Your task to perform on an android device: Open calendar and show me the second week of next month Image 0: 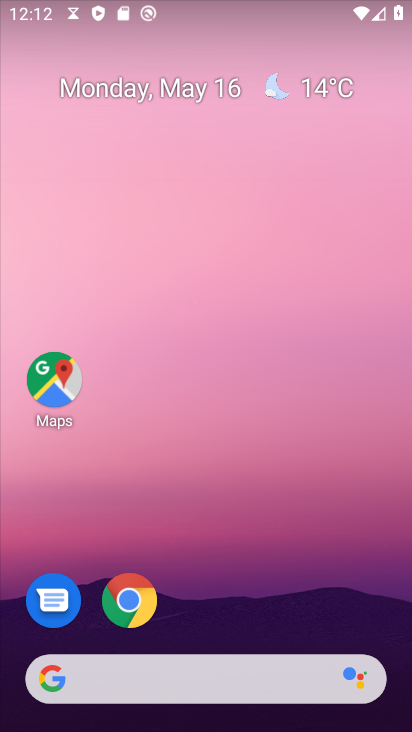
Step 0: drag from (201, 584) to (222, 94)
Your task to perform on an android device: Open calendar and show me the second week of next month Image 1: 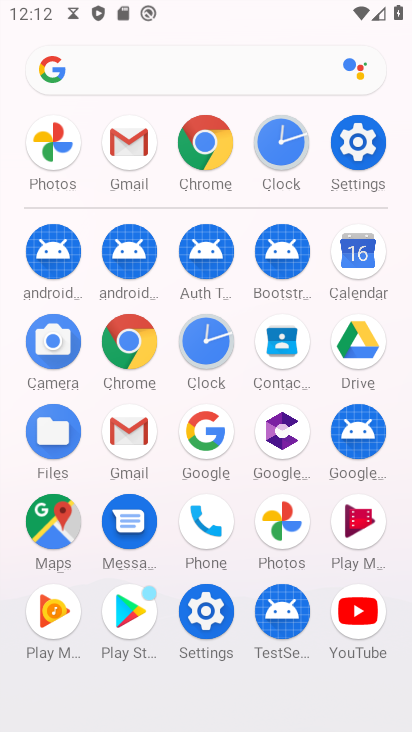
Step 1: click (364, 245)
Your task to perform on an android device: Open calendar and show me the second week of next month Image 2: 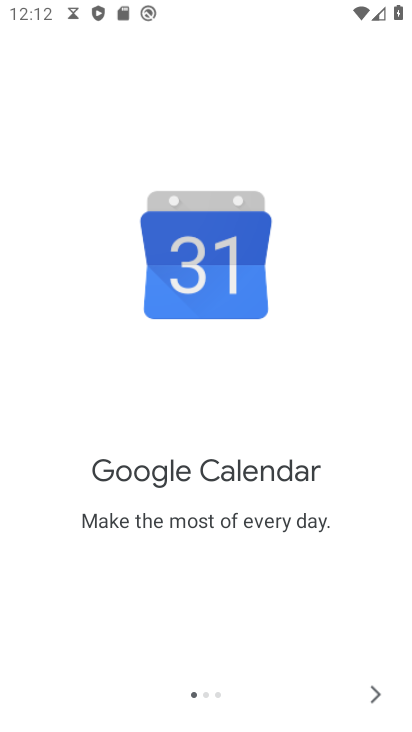
Step 2: click (377, 690)
Your task to perform on an android device: Open calendar and show me the second week of next month Image 3: 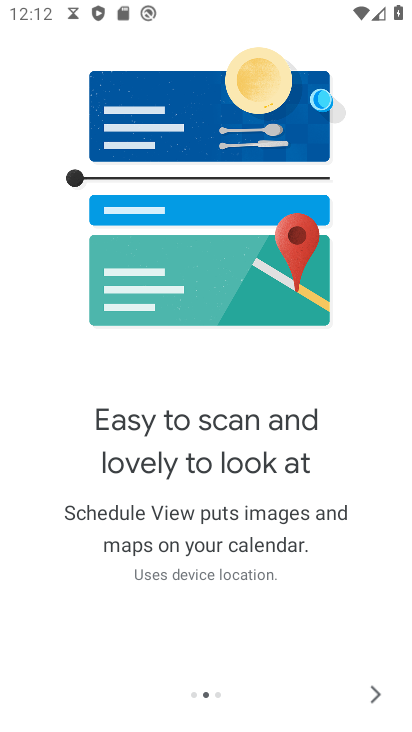
Step 3: click (377, 690)
Your task to perform on an android device: Open calendar and show me the second week of next month Image 4: 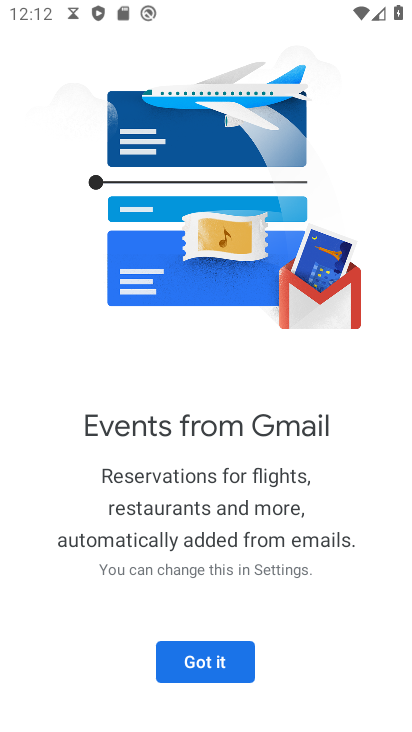
Step 4: click (214, 666)
Your task to perform on an android device: Open calendar and show me the second week of next month Image 5: 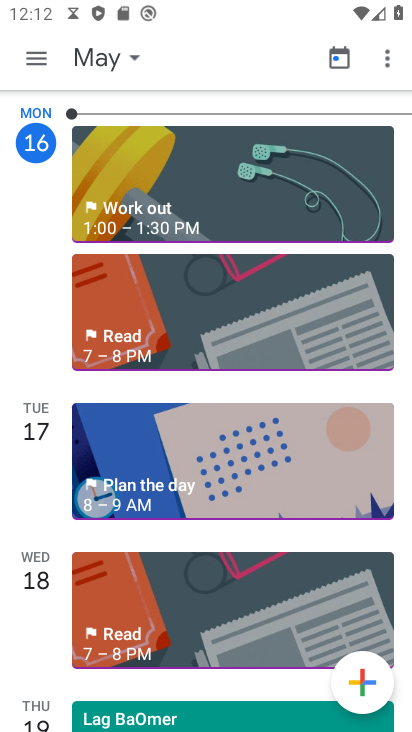
Step 5: click (123, 47)
Your task to perform on an android device: Open calendar and show me the second week of next month Image 6: 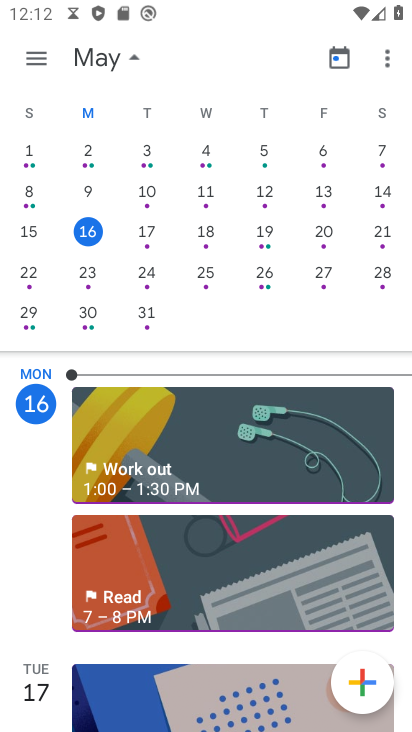
Step 6: drag from (357, 231) to (7, 208)
Your task to perform on an android device: Open calendar and show me the second week of next month Image 7: 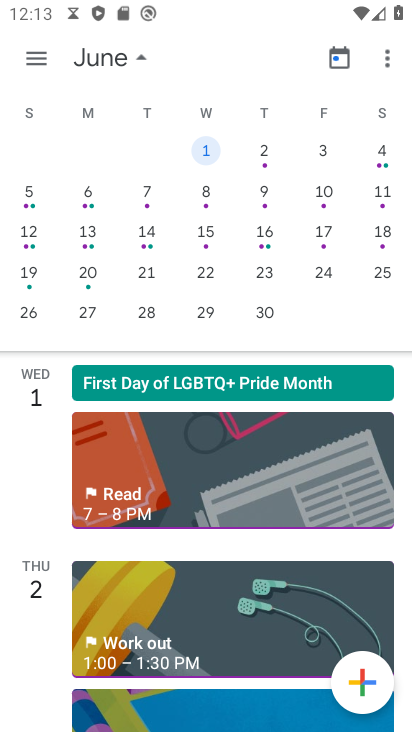
Step 7: click (29, 201)
Your task to perform on an android device: Open calendar and show me the second week of next month Image 8: 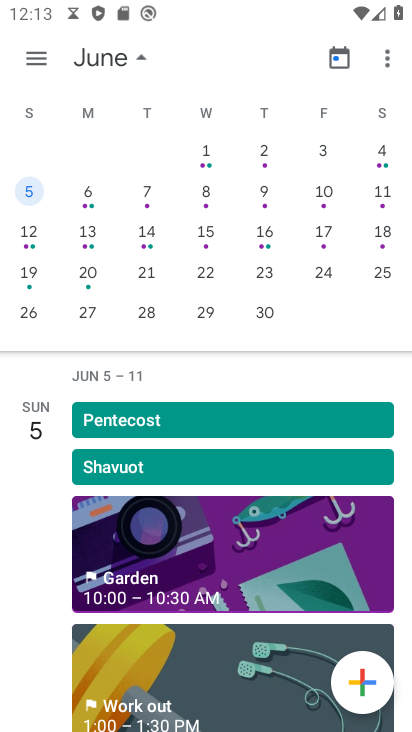
Step 8: click (38, 51)
Your task to perform on an android device: Open calendar and show me the second week of next month Image 9: 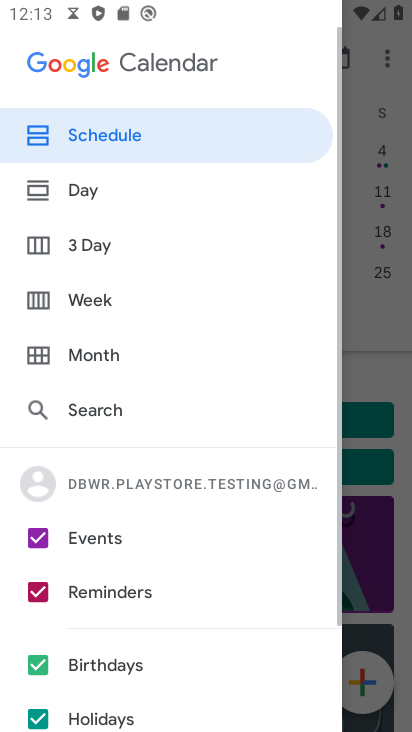
Step 9: click (112, 304)
Your task to perform on an android device: Open calendar and show me the second week of next month Image 10: 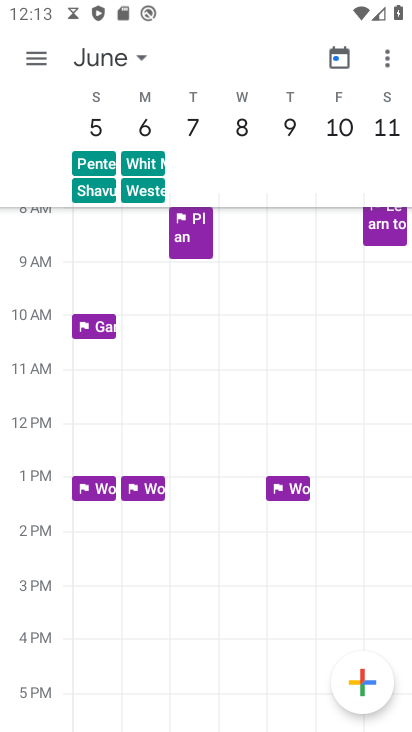
Step 10: task complete